Your task to perform on an android device: Go to accessibility settings Image 0: 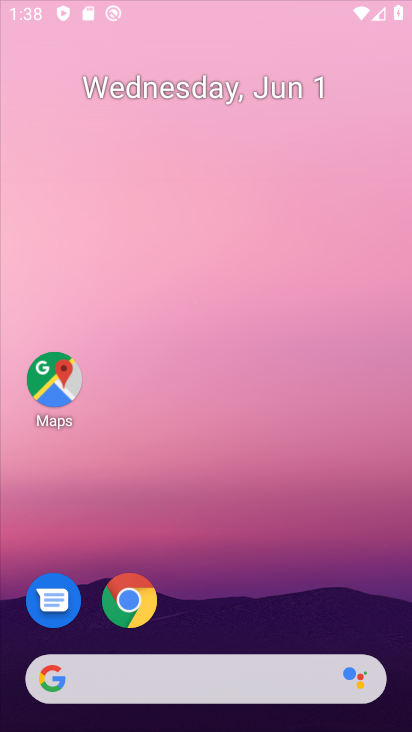
Step 0: click (348, 108)
Your task to perform on an android device: Go to accessibility settings Image 1: 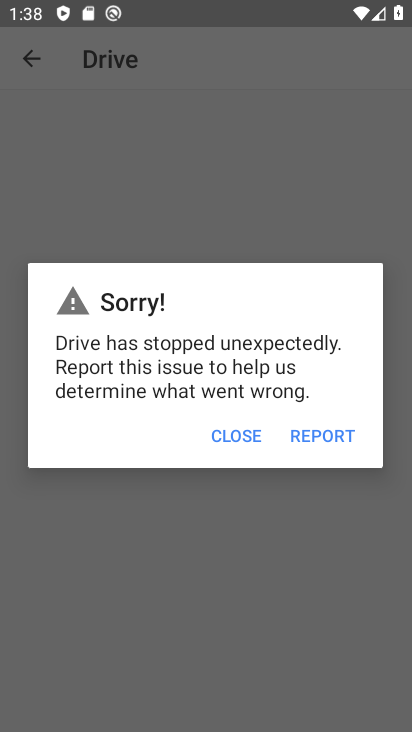
Step 1: press home button
Your task to perform on an android device: Go to accessibility settings Image 2: 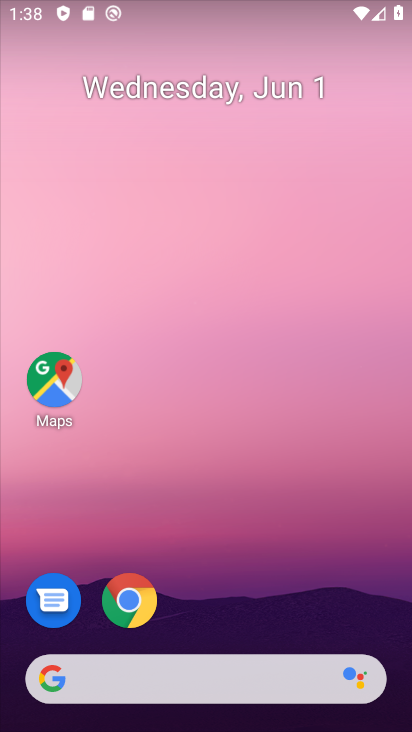
Step 2: drag from (249, 640) to (326, 114)
Your task to perform on an android device: Go to accessibility settings Image 3: 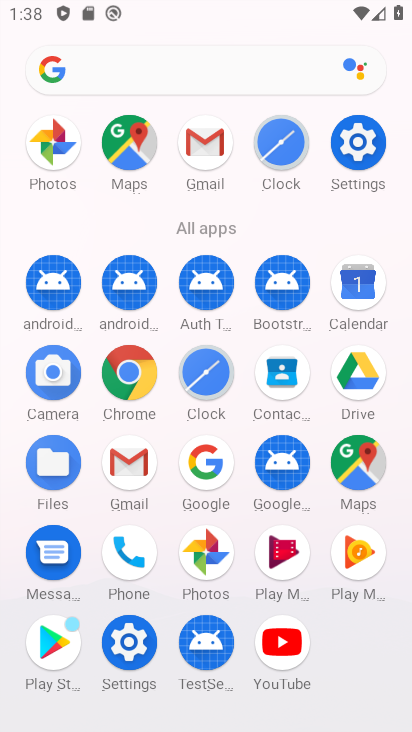
Step 3: click (128, 642)
Your task to perform on an android device: Go to accessibility settings Image 4: 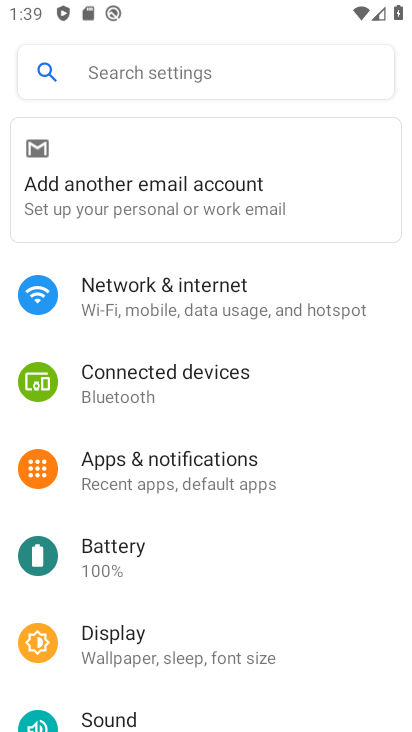
Step 4: drag from (169, 612) to (300, 159)
Your task to perform on an android device: Go to accessibility settings Image 5: 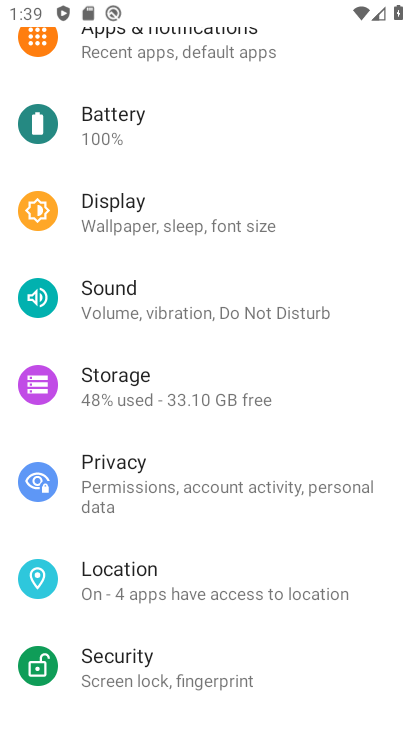
Step 5: drag from (163, 666) to (291, 164)
Your task to perform on an android device: Go to accessibility settings Image 6: 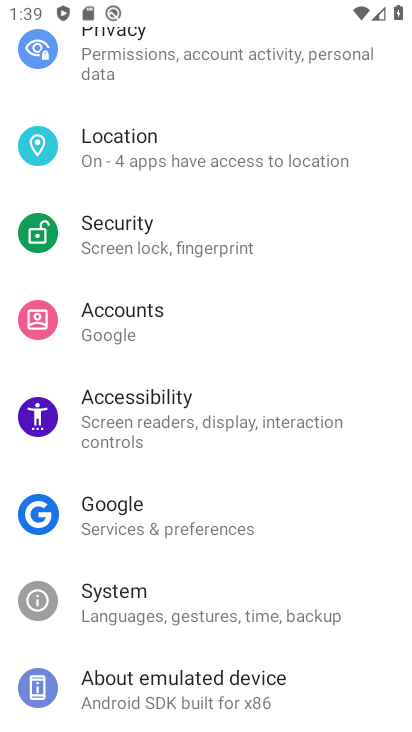
Step 6: click (157, 410)
Your task to perform on an android device: Go to accessibility settings Image 7: 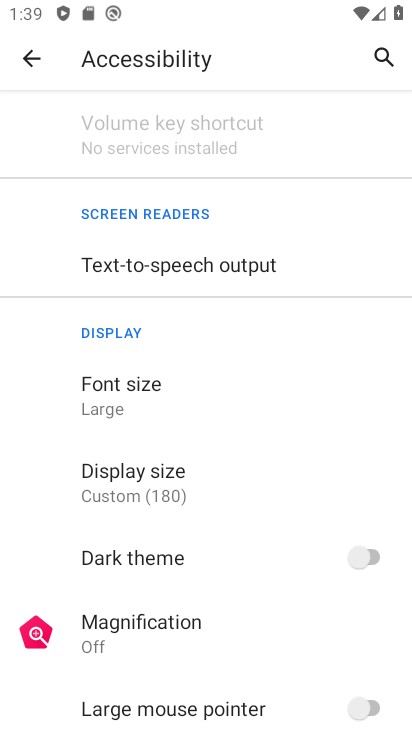
Step 7: task complete